Your task to perform on an android device: open chrome and create a bookmark for the current page Image 0: 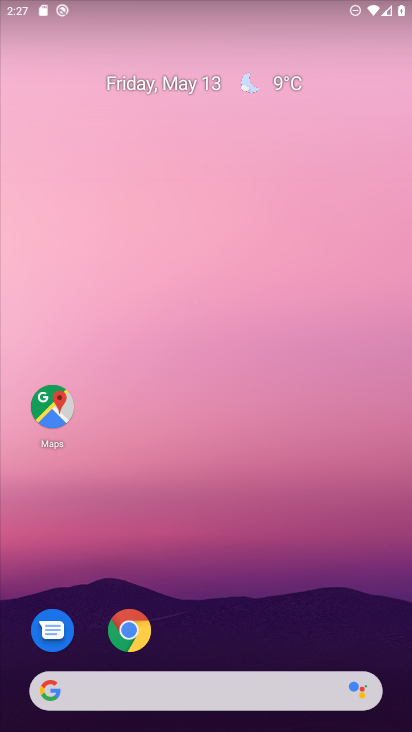
Step 0: drag from (208, 650) to (197, 62)
Your task to perform on an android device: open chrome and create a bookmark for the current page Image 1: 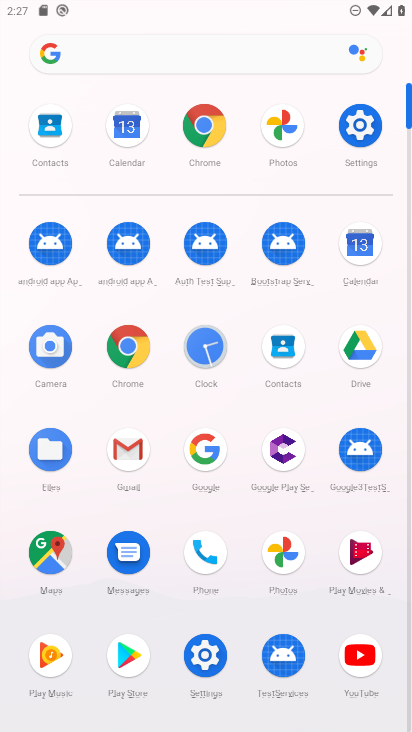
Step 1: click (125, 342)
Your task to perform on an android device: open chrome and create a bookmark for the current page Image 2: 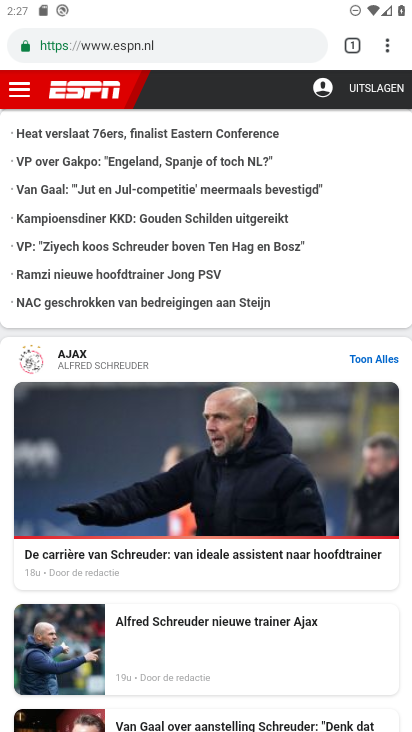
Step 2: click (386, 45)
Your task to perform on an android device: open chrome and create a bookmark for the current page Image 3: 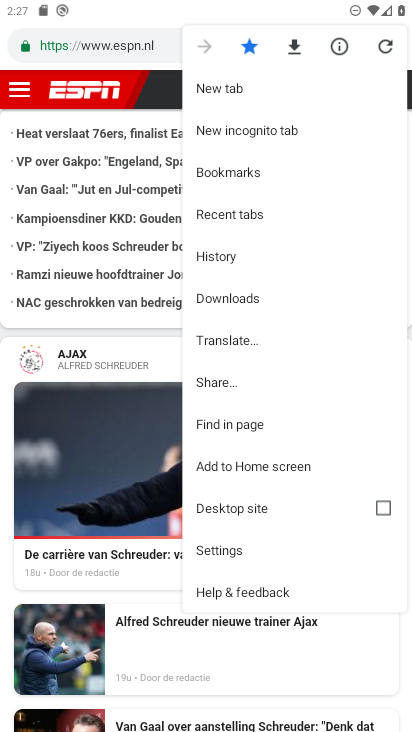
Step 3: click (99, 157)
Your task to perform on an android device: open chrome and create a bookmark for the current page Image 4: 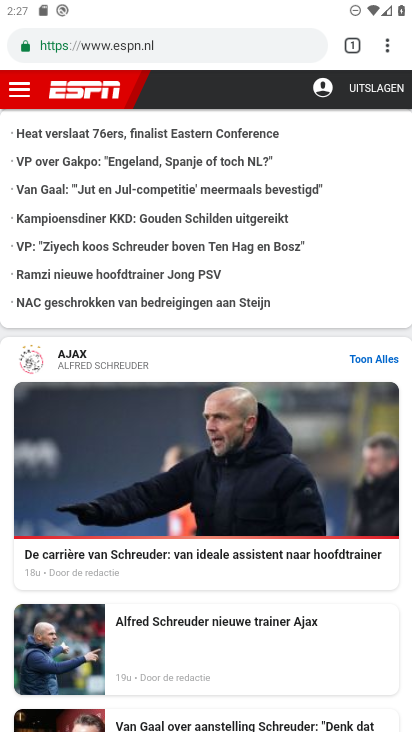
Step 4: drag from (186, 570) to (200, 87)
Your task to perform on an android device: open chrome and create a bookmark for the current page Image 5: 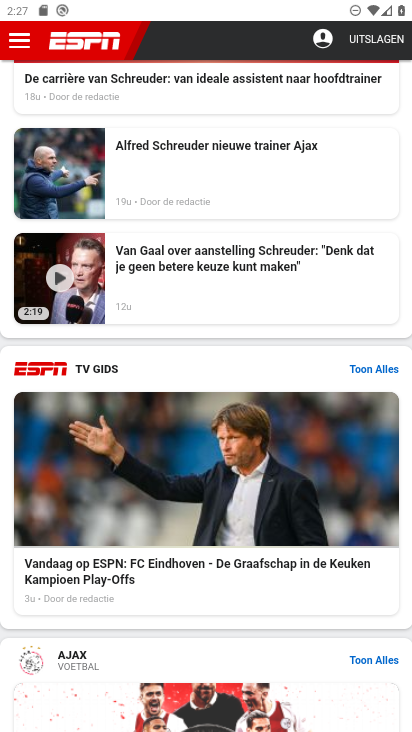
Step 5: drag from (207, 622) to (207, 57)
Your task to perform on an android device: open chrome and create a bookmark for the current page Image 6: 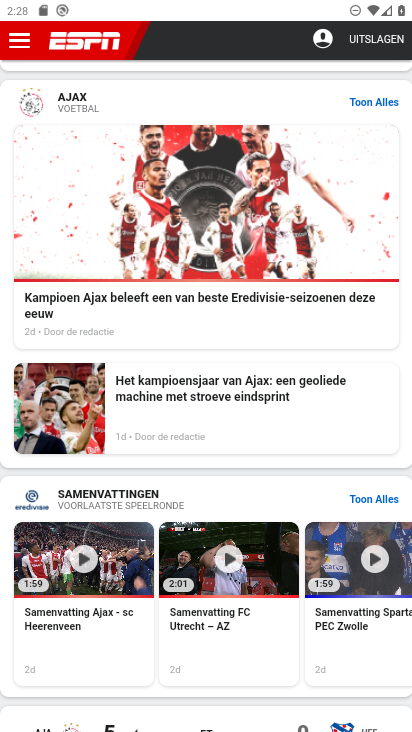
Step 6: click (174, 398)
Your task to perform on an android device: open chrome and create a bookmark for the current page Image 7: 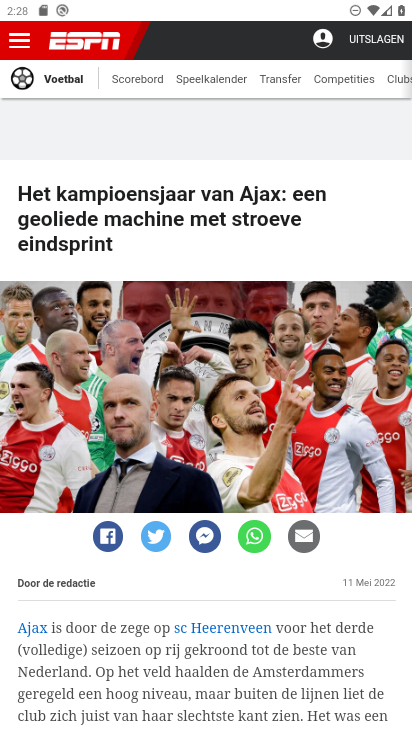
Step 7: drag from (286, 168) to (285, 450)
Your task to perform on an android device: open chrome and create a bookmark for the current page Image 8: 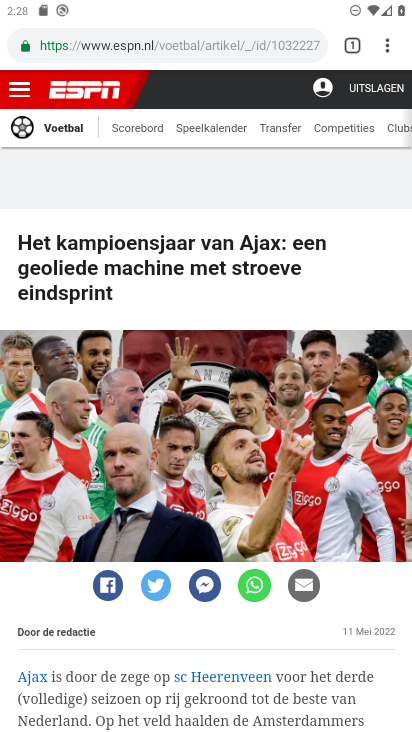
Step 8: click (390, 40)
Your task to perform on an android device: open chrome and create a bookmark for the current page Image 9: 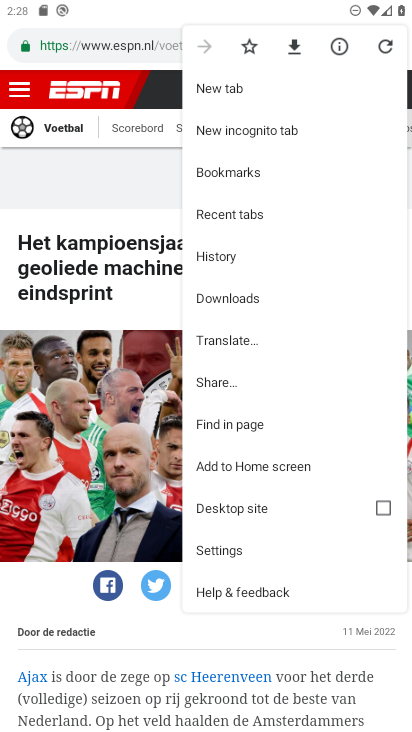
Step 9: click (251, 44)
Your task to perform on an android device: open chrome and create a bookmark for the current page Image 10: 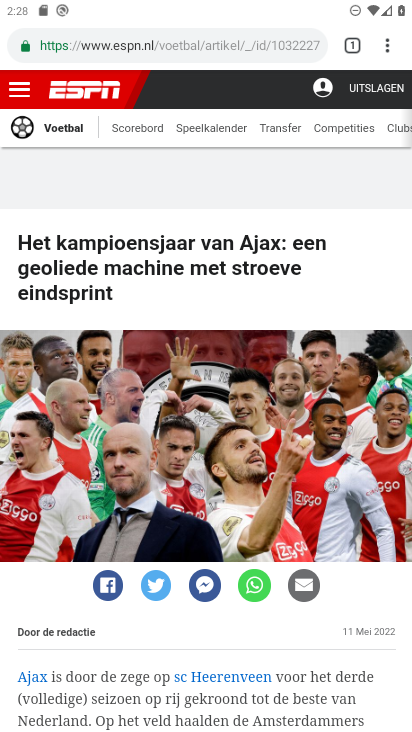
Step 10: task complete